Your task to perform on an android device: Show me the alarms in the clock app Image 0: 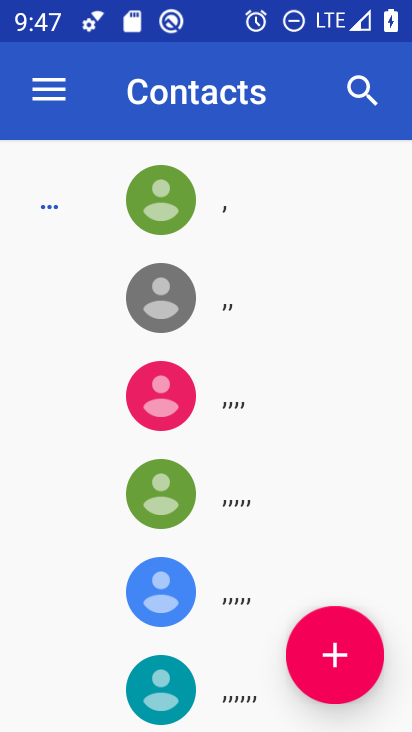
Step 0: press home button
Your task to perform on an android device: Show me the alarms in the clock app Image 1: 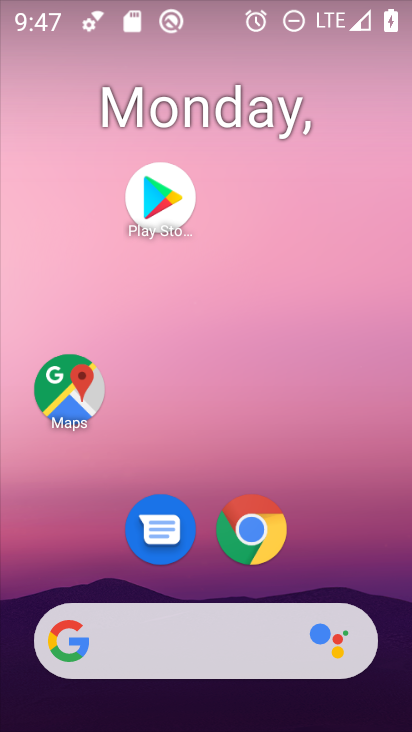
Step 1: drag from (316, 497) to (201, 100)
Your task to perform on an android device: Show me the alarms in the clock app Image 2: 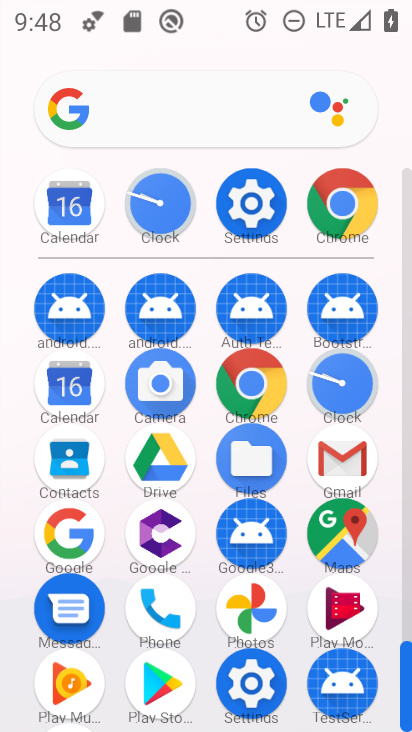
Step 2: click (337, 392)
Your task to perform on an android device: Show me the alarms in the clock app Image 3: 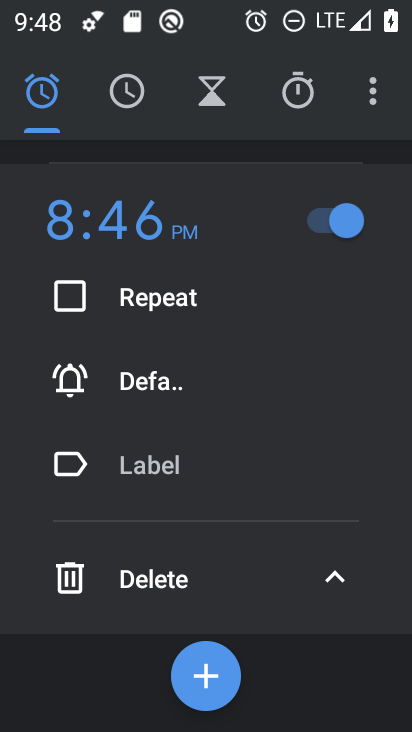
Step 3: click (31, 98)
Your task to perform on an android device: Show me the alarms in the clock app Image 4: 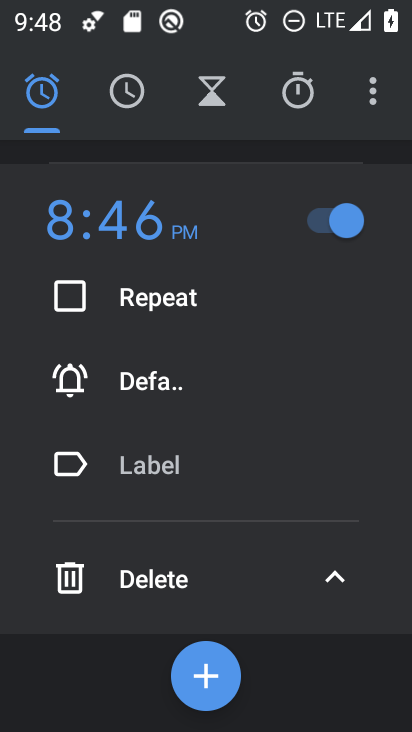
Step 4: task complete